Your task to perform on an android device: toggle notification dots Image 0: 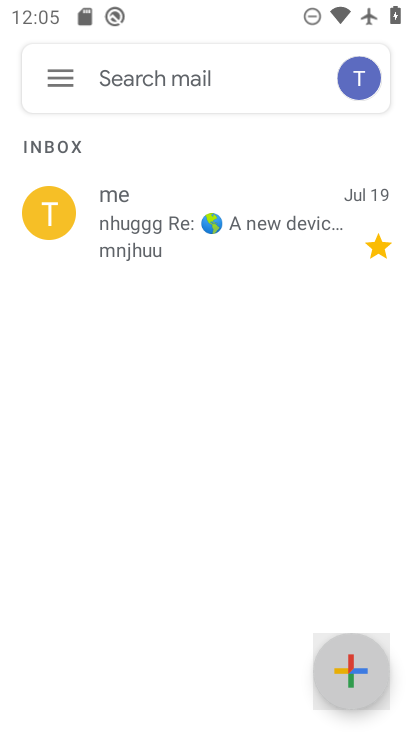
Step 0: press home button
Your task to perform on an android device: toggle notification dots Image 1: 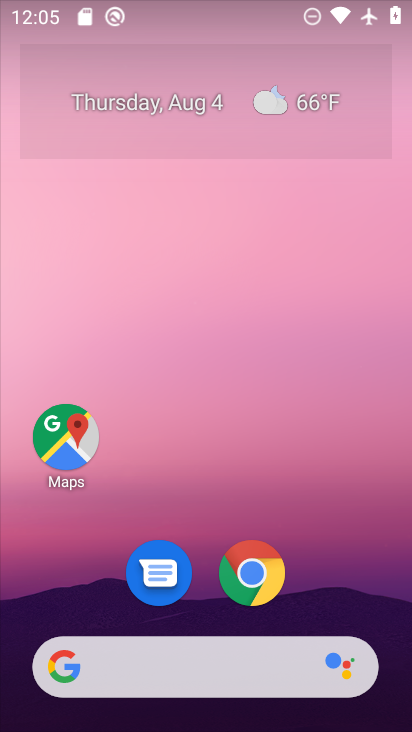
Step 1: drag from (341, 575) to (254, 0)
Your task to perform on an android device: toggle notification dots Image 2: 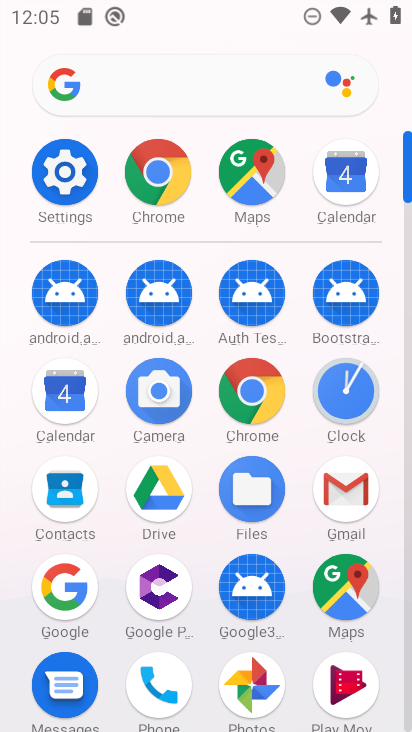
Step 2: click (67, 180)
Your task to perform on an android device: toggle notification dots Image 3: 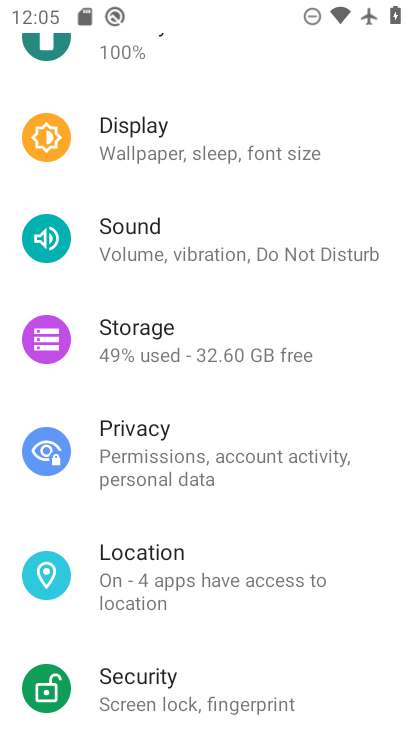
Step 3: drag from (270, 111) to (210, 470)
Your task to perform on an android device: toggle notification dots Image 4: 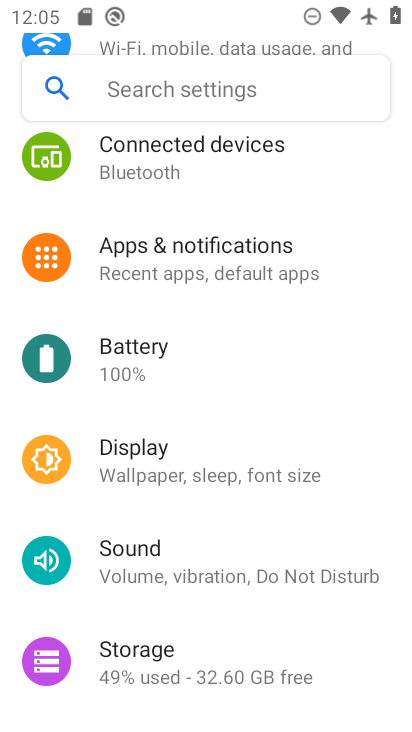
Step 4: click (160, 264)
Your task to perform on an android device: toggle notification dots Image 5: 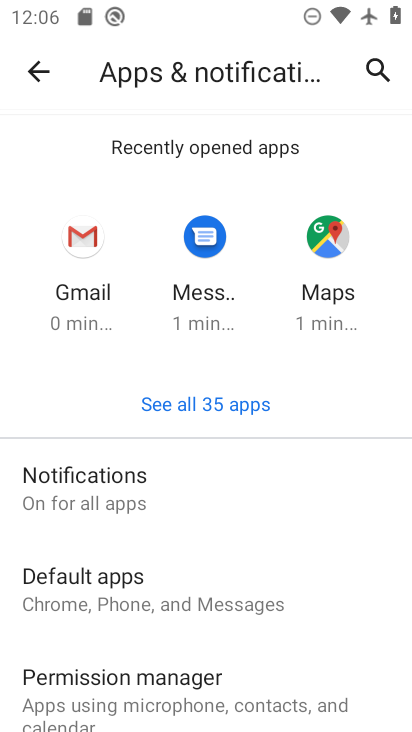
Step 5: click (99, 483)
Your task to perform on an android device: toggle notification dots Image 6: 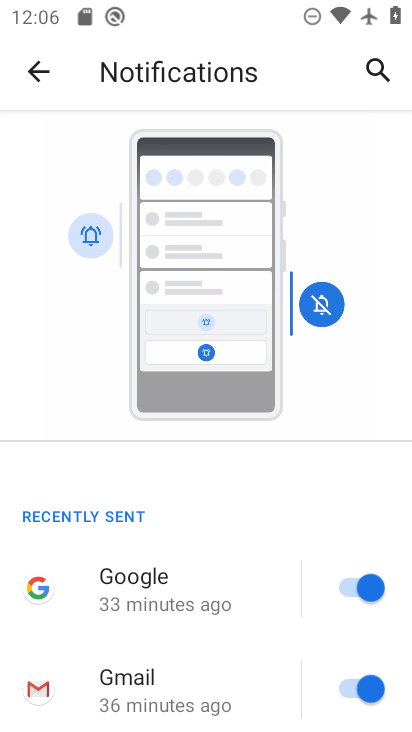
Step 6: drag from (258, 514) to (254, 183)
Your task to perform on an android device: toggle notification dots Image 7: 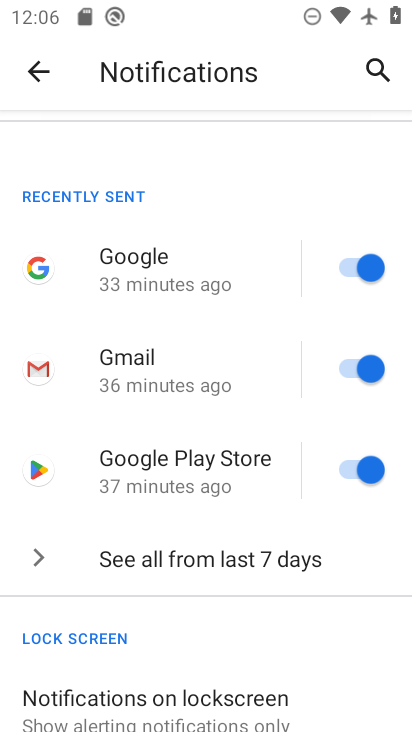
Step 7: drag from (278, 613) to (254, 455)
Your task to perform on an android device: toggle notification dots Image 8: 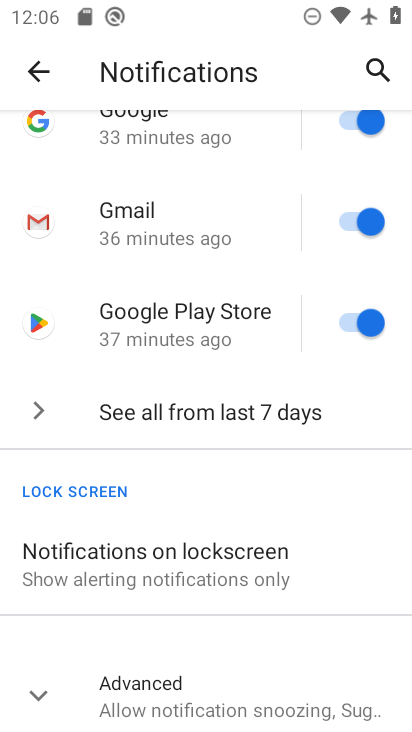
Step 8: click (182, 710)
Your task to perform on an android device: toggle notification dots Image 9: 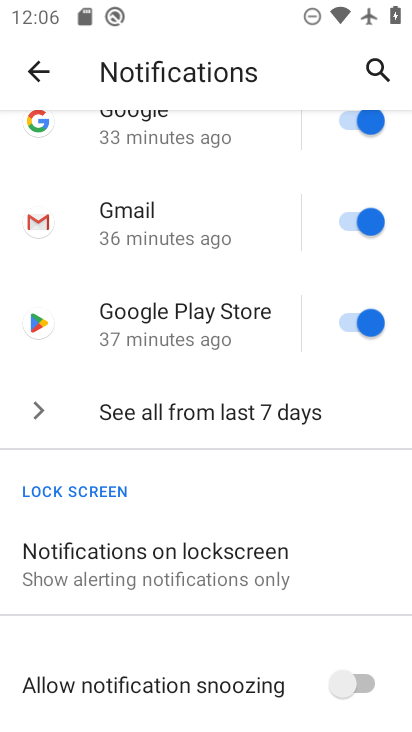
Step 9: drag from (350, 622) to (363, 159)
Your task to perform on an android device: toggle notification dots Image 10: 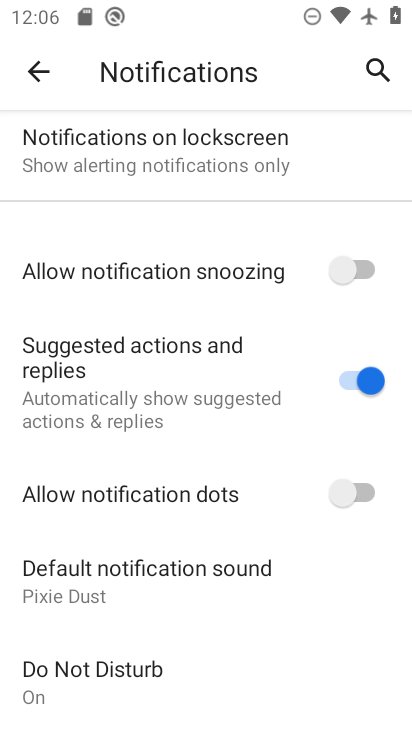
Step 10: click (342, 491)
Your task to perform on an android device: toggle notification dots Image 11: 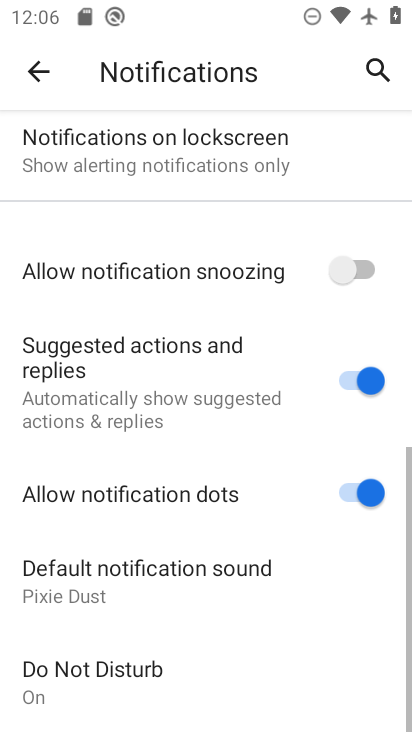
Step 11: task complete